Your task to perform on an android device: turn on airplane mode Image 0: 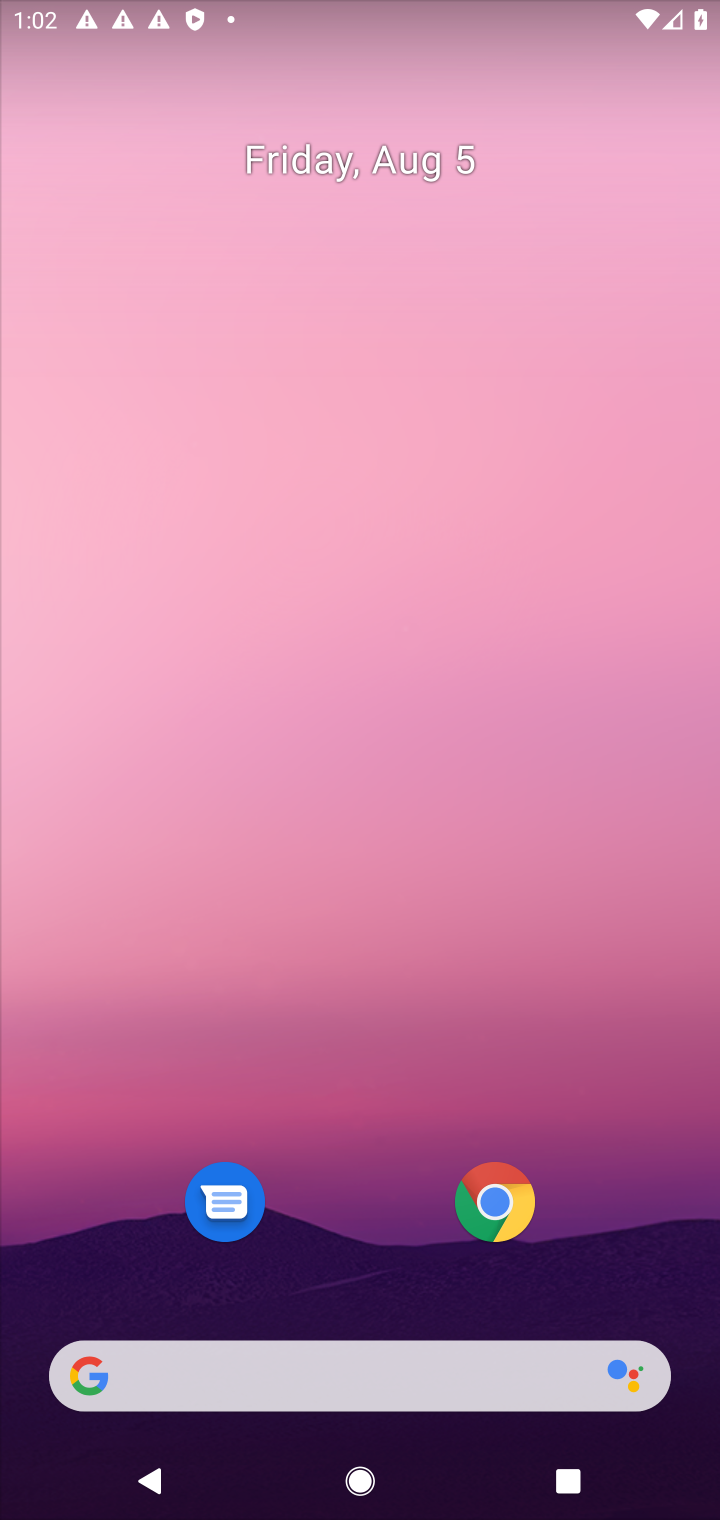
Step 0: drag from (565, 452) to (560, 164)
Your task to perform on an android device: turn on airplane mode Image 1: 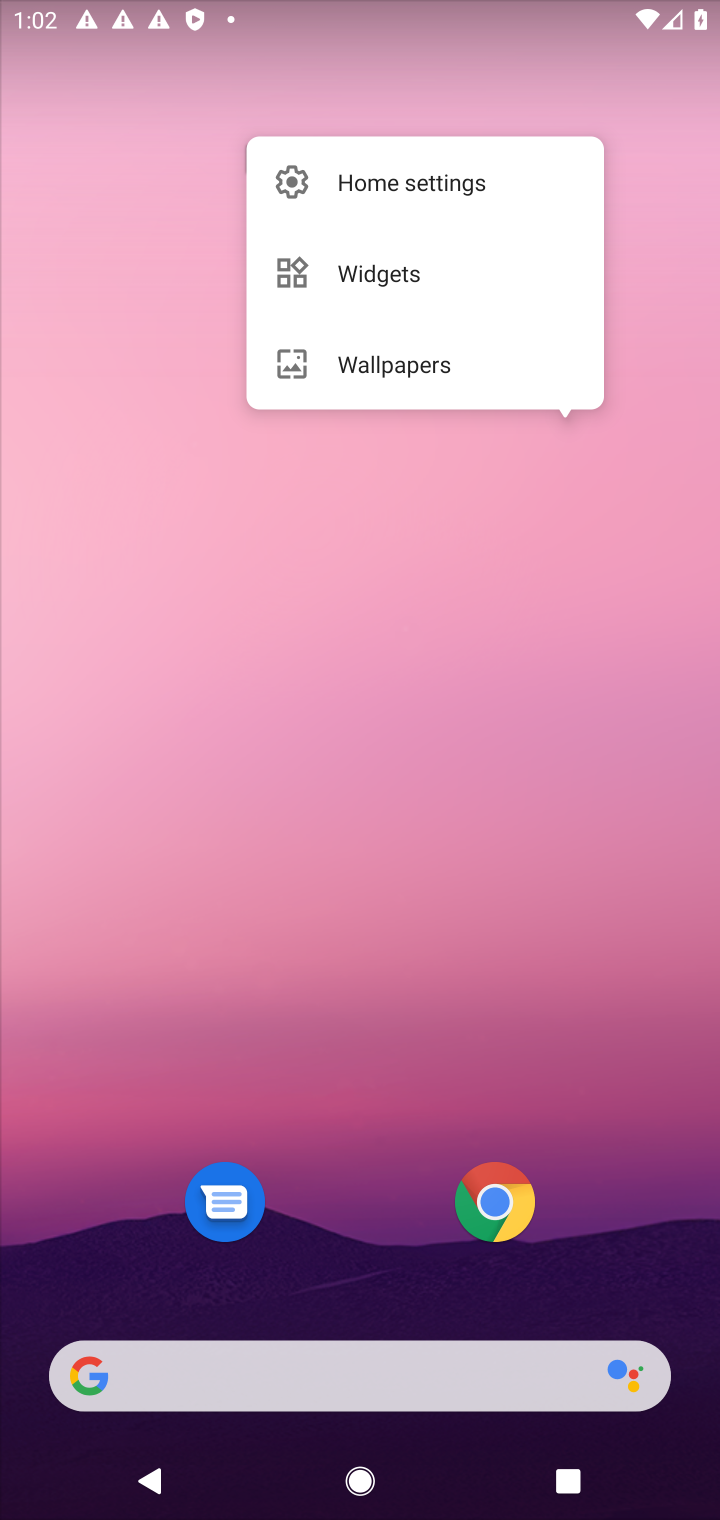
Step 1: click (393, 940)
Your task to perform on an android device: turn on airplane mode Image 2: 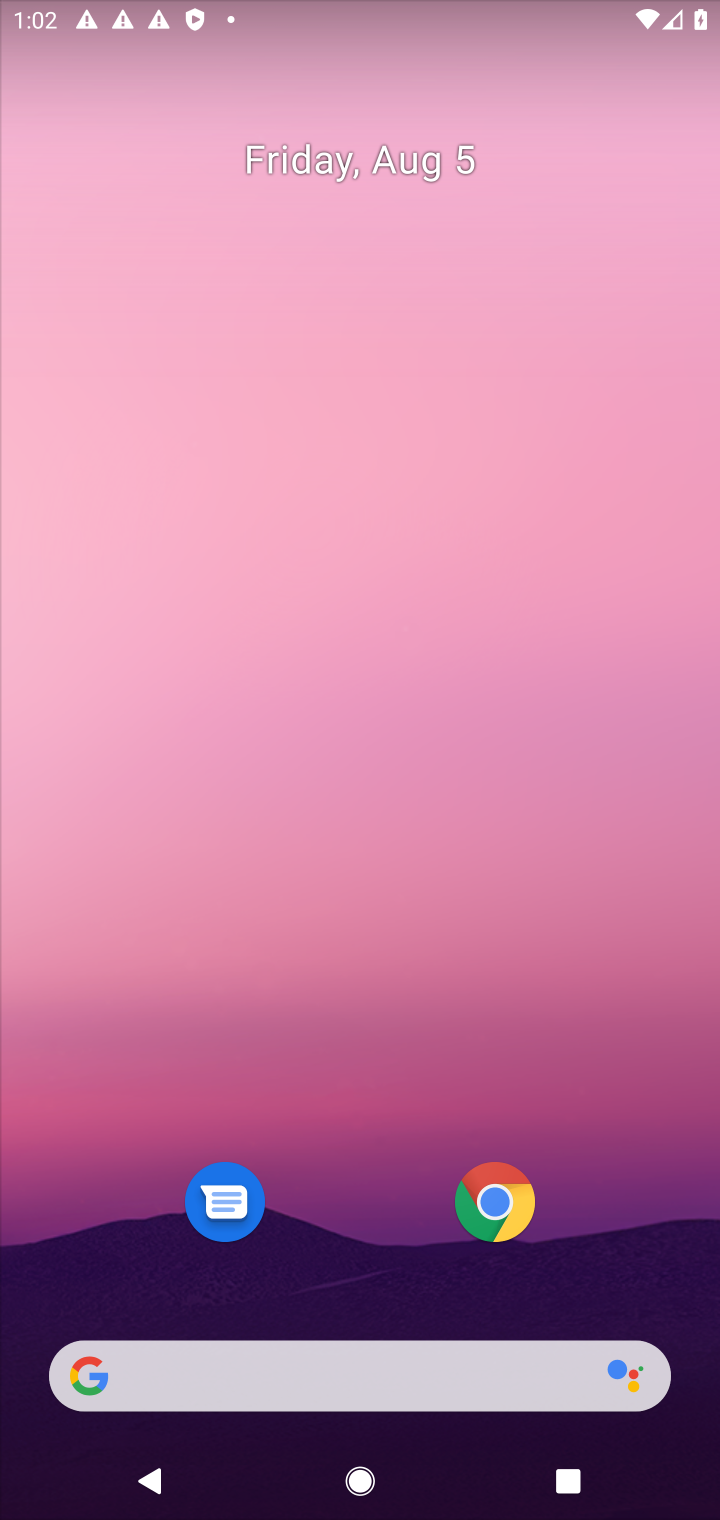
Step 2: drag from (350, 1280) to (463, 175)
Your task to perform on an android device: turn on airplane mode Image 3: 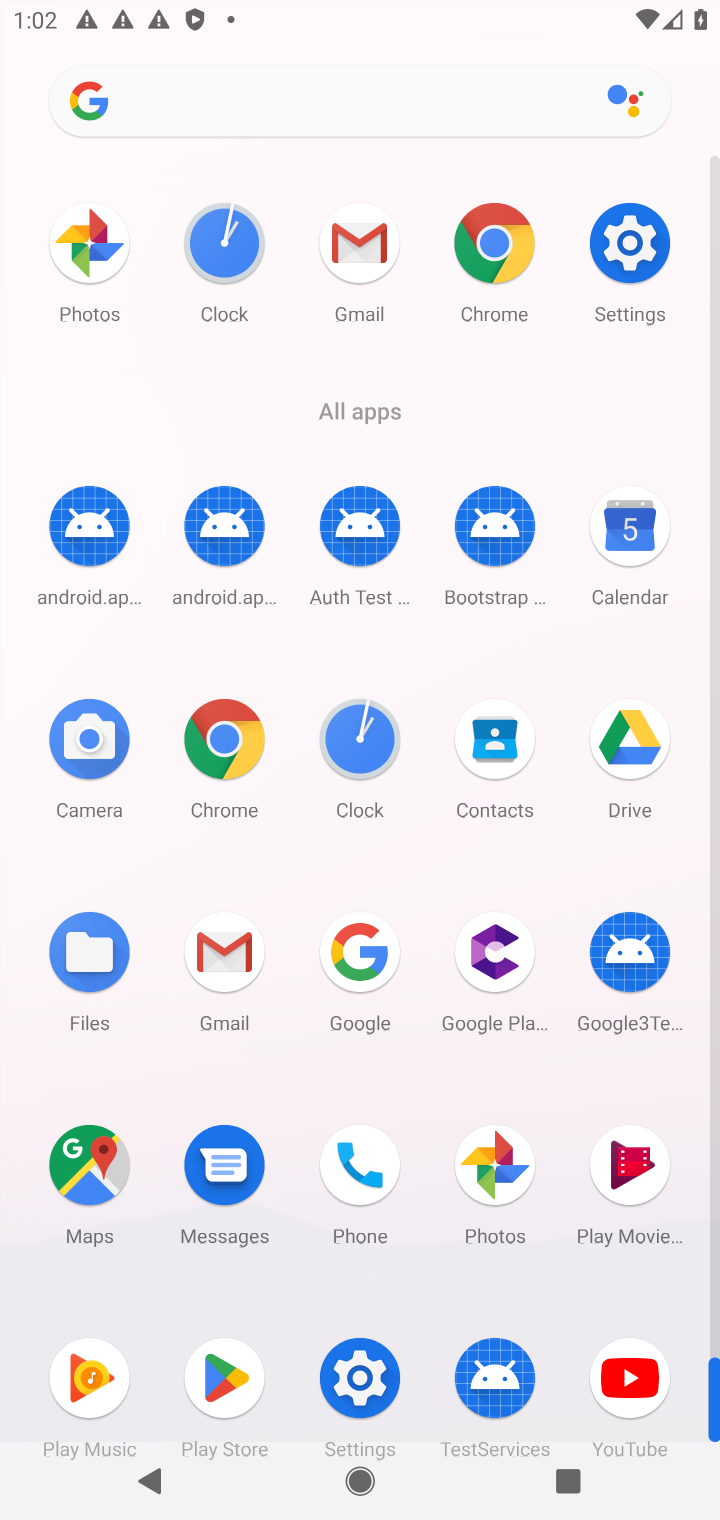
Step 3: click (360, 1397)
Your task to perform on an android device: turn on airplane mode Image 4: 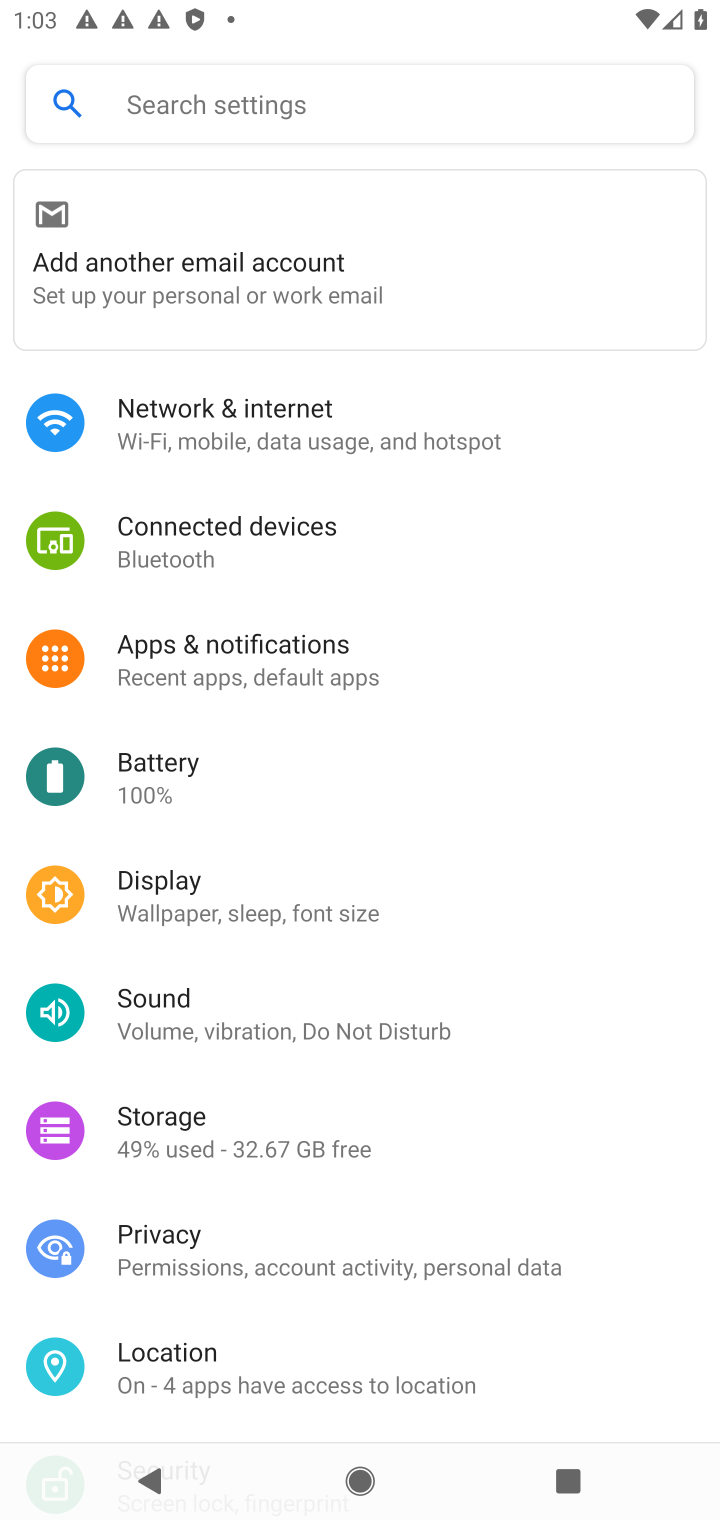
Step 4: click (217, 412)
Your task to perform on an android device: turn on airplane mode Image 5: 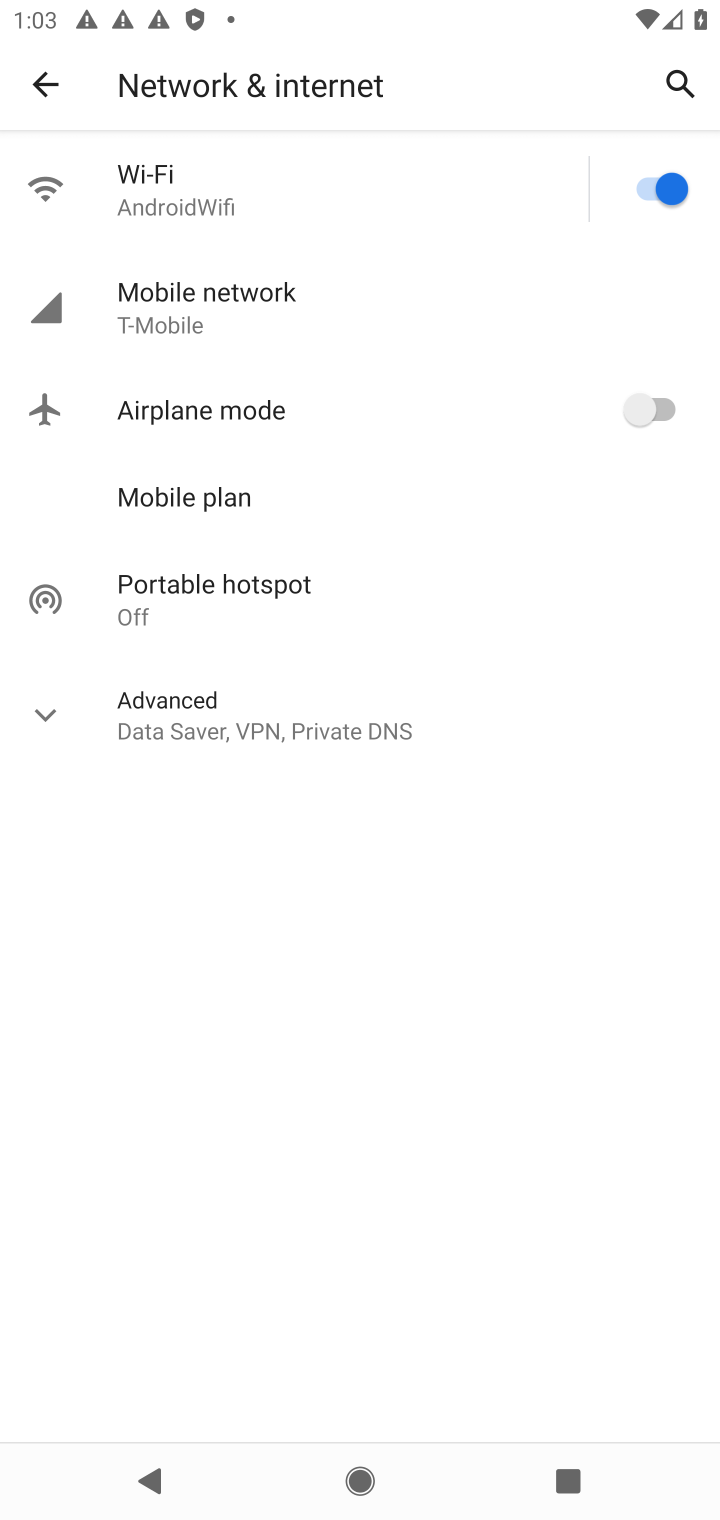
Step 5: click (653, 410)
Your task to perform on an android device: turn on airplane mode Image 6: 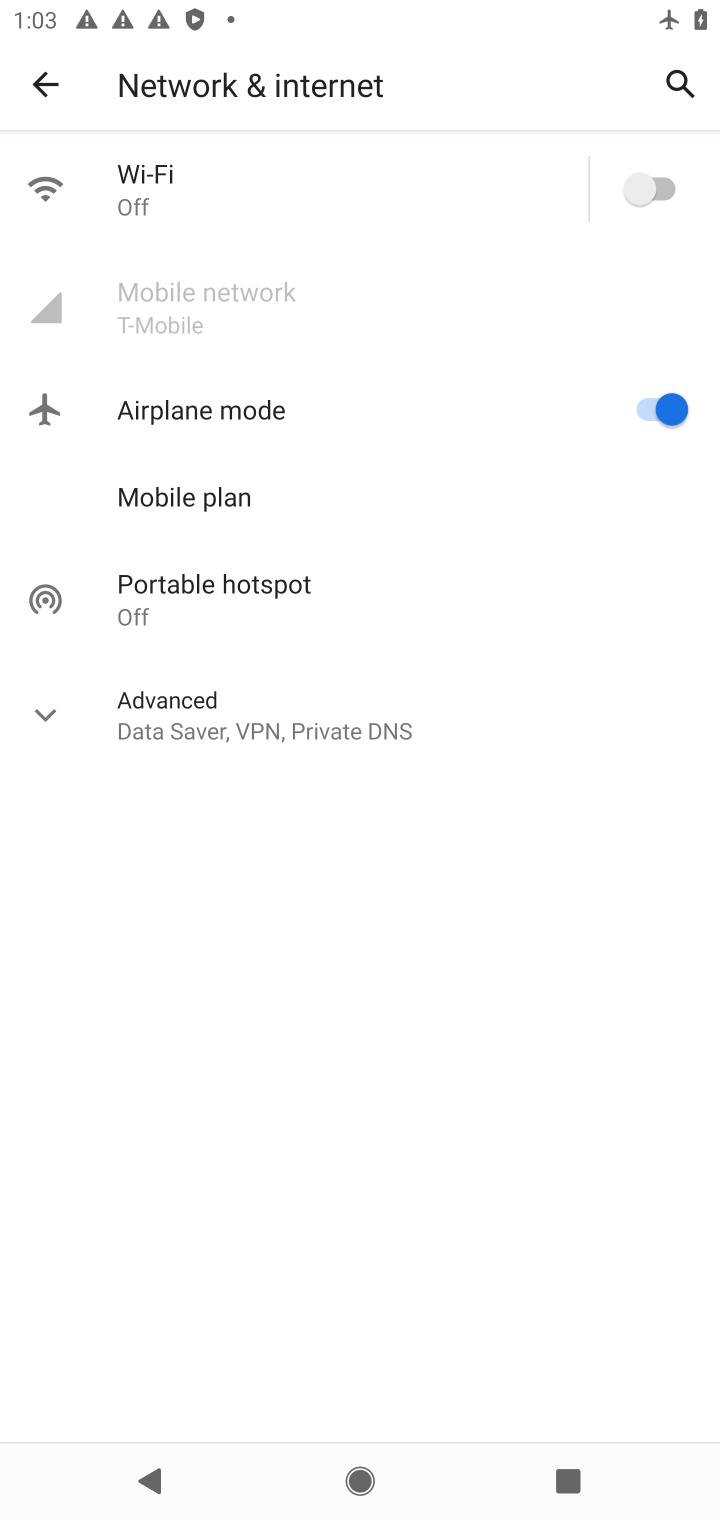
Step 6: task complete